Your task to perform on an android device: open app "DuckDuckGo Privacy Browser" (install if not already installed), go to login, and select forgot password Image 0: 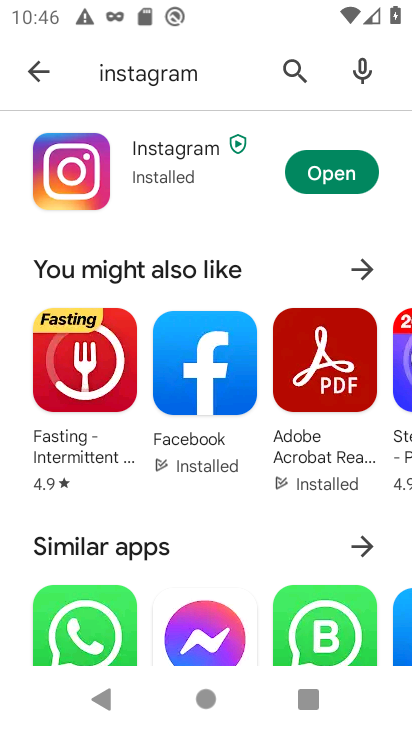
Step 0: press home button
Your task to perform on an android device: open app "DuckDuckGo Privacy Browser" (install if not already installed), go to login, and select forgot password Image 1: 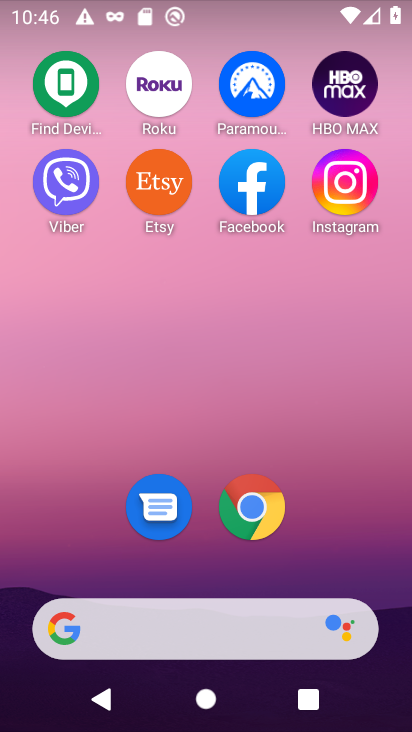
Step 1: drag from (198, 623) to (184, 104)
Your task to perform on an android device: open app "DuckDuckGo Privacy Browser" (install if not already installed), go to login, and select forgot password Image 2: 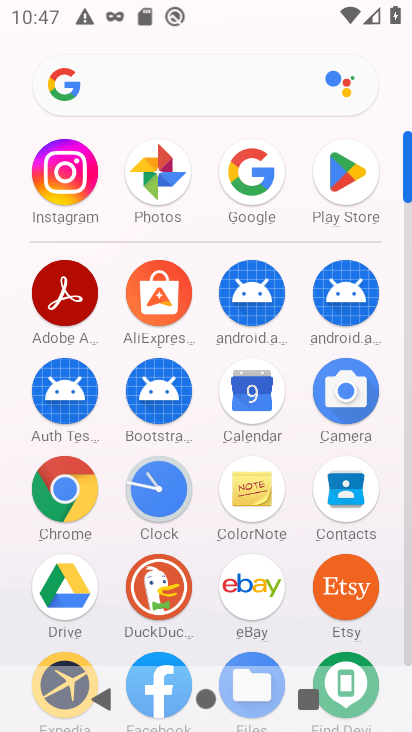
Step 2: click (350, 173)
Your task to perform on an android device: open app "DuckDuckGo Privacy Browser" (install if not already installed), go to login, and select forgot password Image 3: 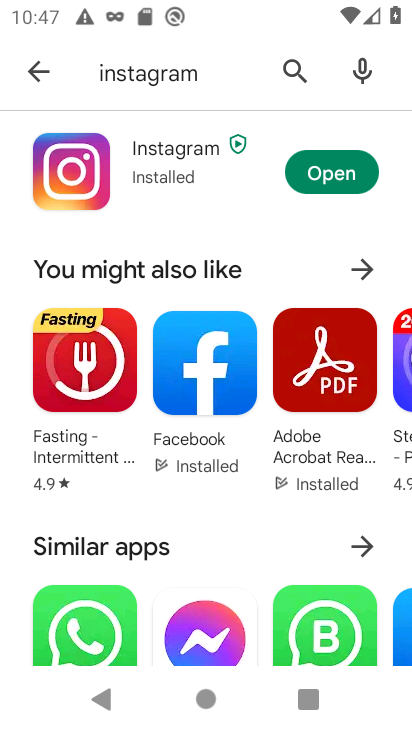
Step 3: click (290, 66)
Your task to perform on an android device: open app "DuckDuckGo Privacy Browser" (install if not already installed), go to login, and select forgot password Image 4: 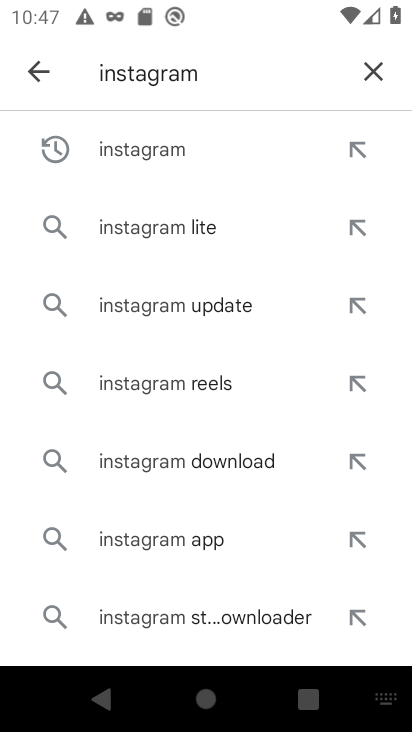
Step 4: click (368, 72)
Your task to perform on an android device: open app "DuckDuckGo Privacy Browser" (install if not already installed), go to login, and select forgot password Image 5: 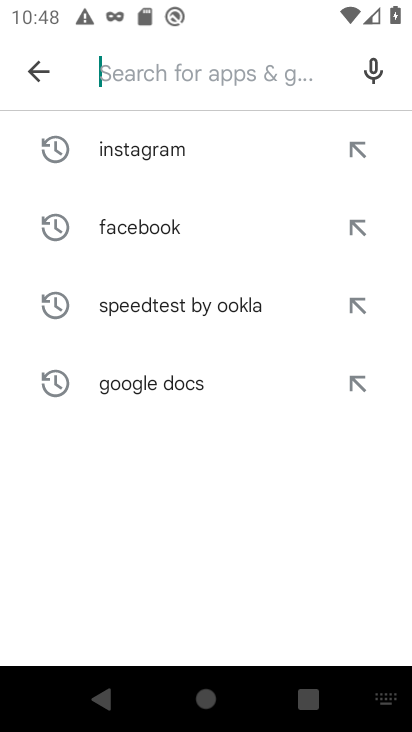
Step 5: type "DuckDuckGO Privacy Broser"
Your task to perform on an android device: open app "DuckDuckGo Privacy Browser" (install if not already installed), go to login, and select forgot password Image 6: 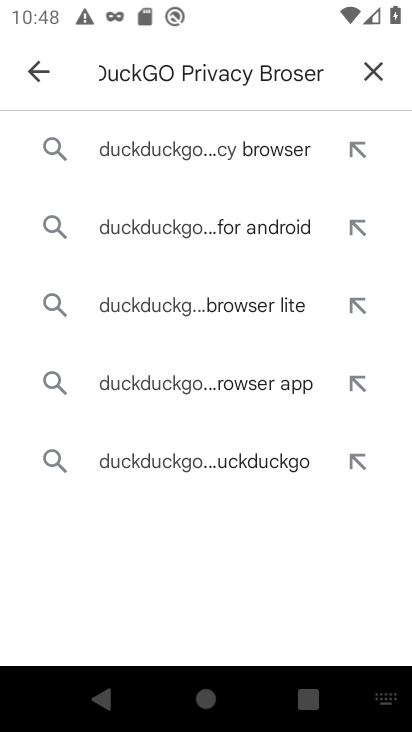
Step 6: click (168, 153)
Your task to perform on an android device: open app "DuckDuckGo Privacy Browser" (install if not already installed), go to login, and select forgot password Image 7: 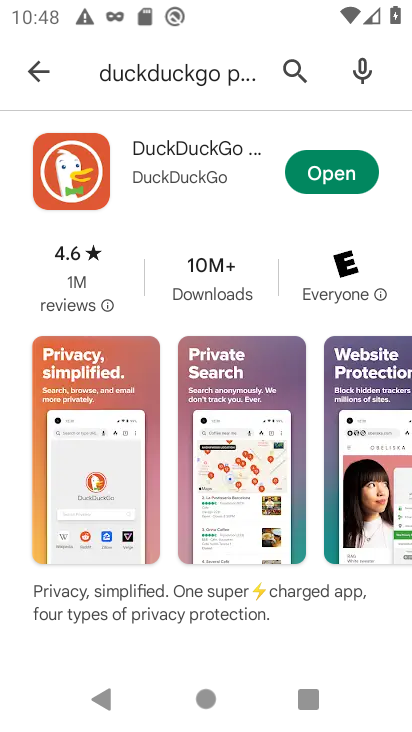
Step 7: click (327, 175)
Your task to perform on an android device: open app "DuckDuckGo Privacy Browser" (install if not already installed), go to login, and select forgot password Image 8: 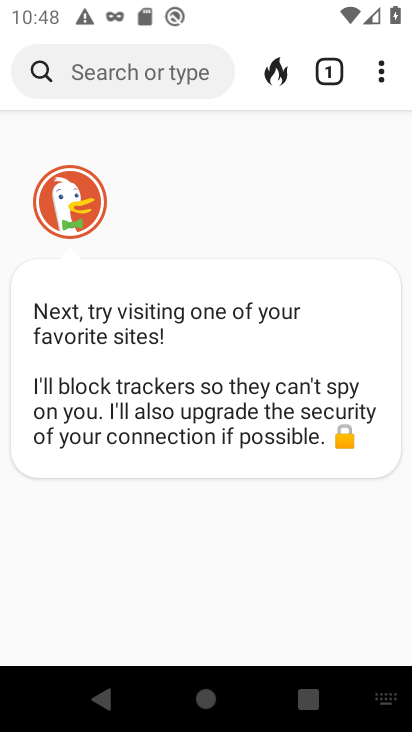
Step 8: click (276, 77)
Your task to perform on an android device: open app "DuckDuckGo Privacy Browser" (install if not already installed), go to login, and select forgot password Image 9: 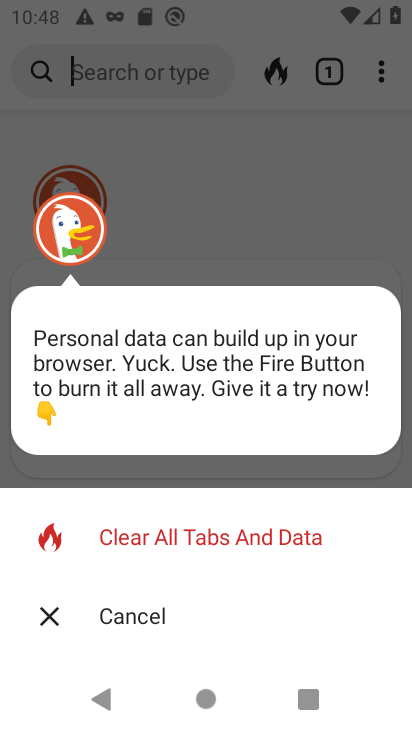
Step 9: click (281, 189)
Your task to perform on an android device: open app "DuckDuckGo Privacy Browser" (install if not already installed), go to login, and select forgot password Image 10: 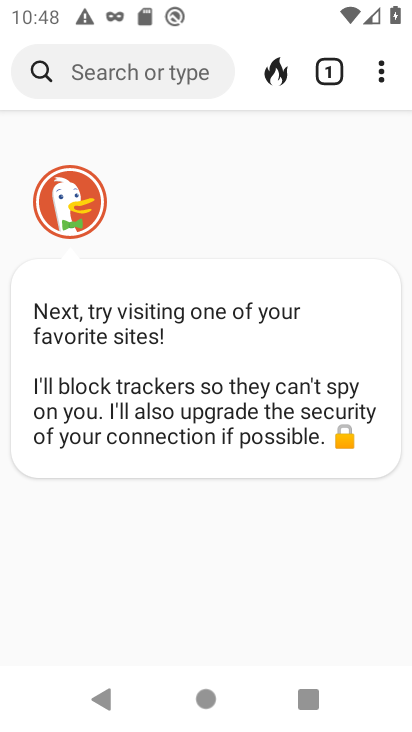
Step 10: task complete